Your task to perform on an android device: What is the recent news? Image 0: 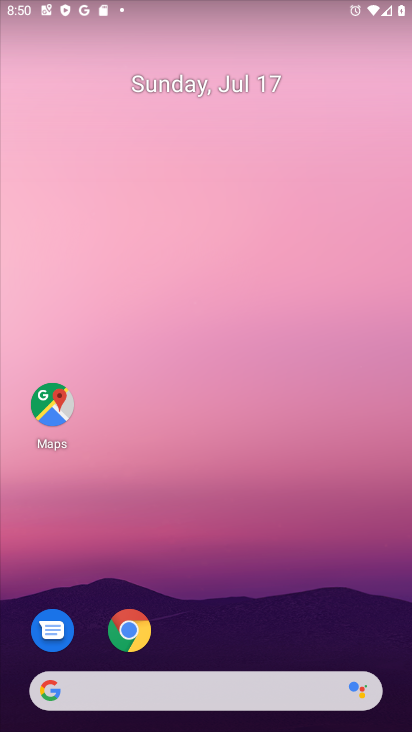
Step 0: click (177, 641)
Your task to perform on an android device: What is the recent news? Image 1: 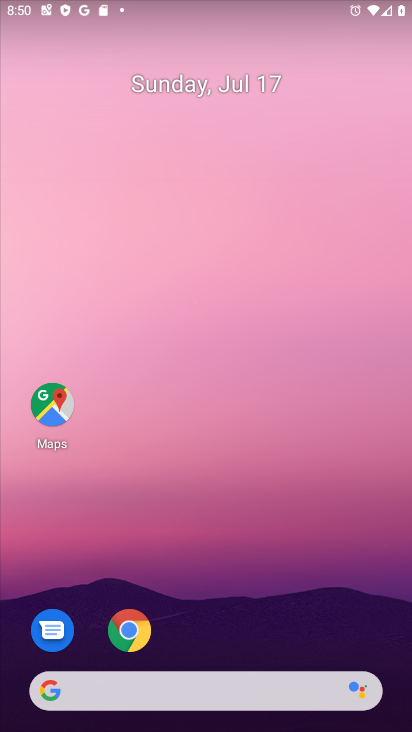
Step 1: click (136, 688)
Your task to perform on an android device: What is the recent news? Image 2: 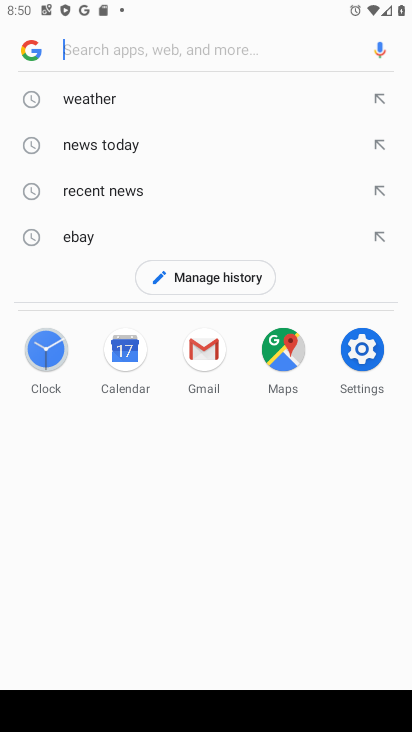
Step 2: click (107, 195)
Your task to perform on an android device: What is the recent news? Image 3: 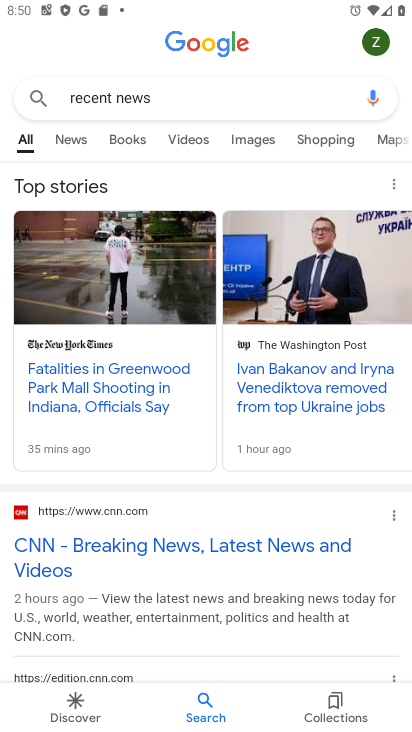
Step 3: click (78, 143)
Your task to perform on an android device: What is the recent news? Image 4: 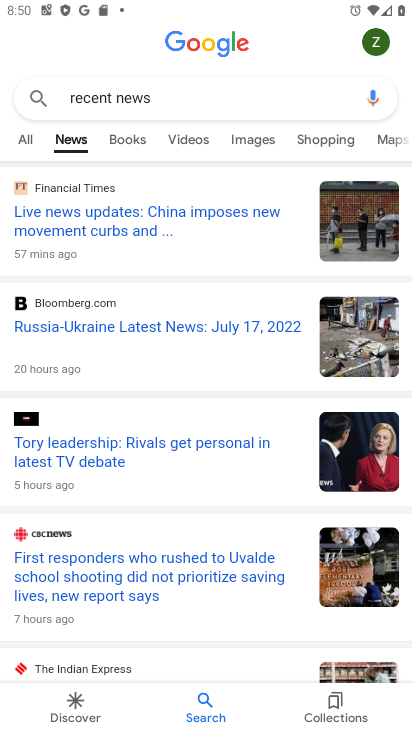
Step 4: task complete